Your task to perform on an android device: Search for the best rated wireless headphones on Amazon. Image 0: 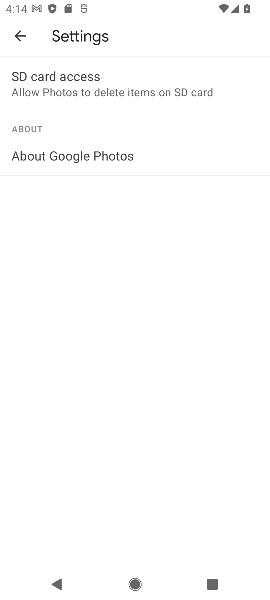
Step 0: click (8, 24)
Your task to perform on an android device: Search for the best rated wireless headphones on Amazon. Image 1: 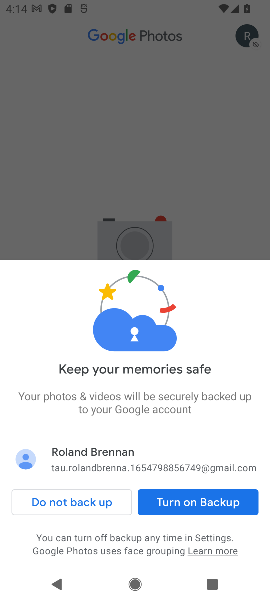
Step 1: press home button
Your task to perform on an android device: Search for the best rated wireless headphones on Amazon. Image 2: 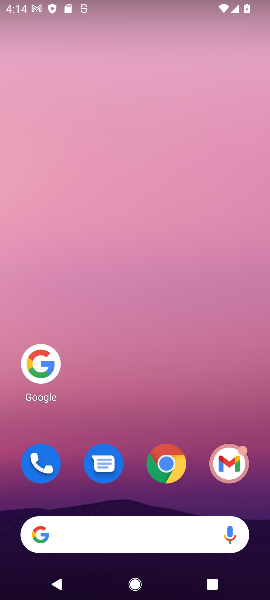
Step 2: click (37, 362)
Your task to perform on an android device: Search for the best rated wireless headphones on Amazon. Image 3: 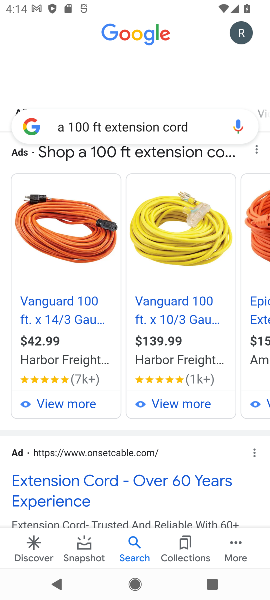
Step 3: click (180, 114)
Your task to perform on an android device: Search for the best rated wireless headphones on Amazon. Image 4: 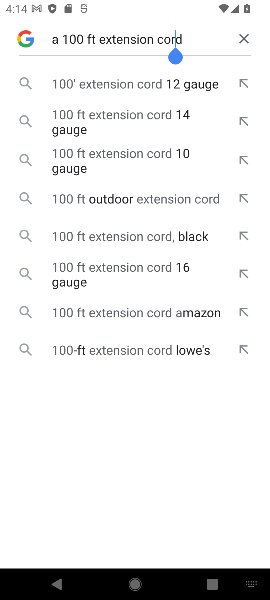
Step 4: click (248, 40)
Your task to perform on an android device: Search for the best rated wireless headphones on Amazon. Image 5: 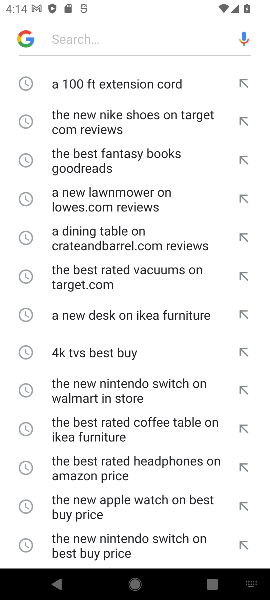
Step 5: click (85, 35)
Your task to perform on an android device: Search for the best rated wireless headphones on Amazon. Image 6: 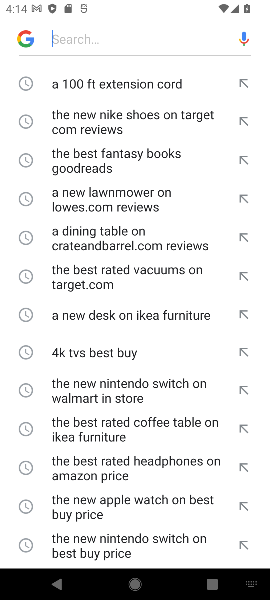
Step 6: type "best rated wireless headphones on Amazon "
Your task to perform on an android device: Search for the best rated wireless headphones on Amazon. Image 7: 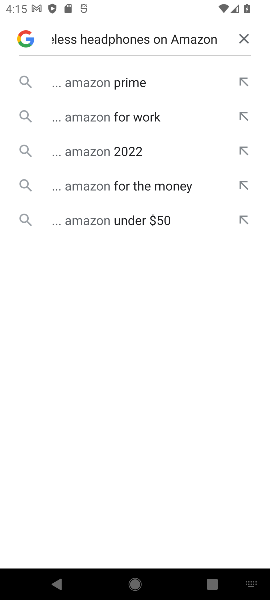
Step 7: click (118, 110)
Your task to perform on an android device: Search for the best rated wireless headphones on Amazon. Image 8: 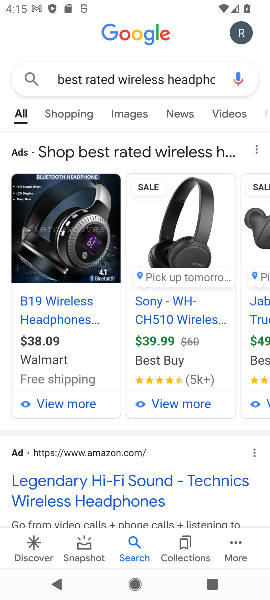
Step 8: click (191, 78)
Your task to perform on an android device: Search for the best rated wireless headphones on Amazon. Image 9: 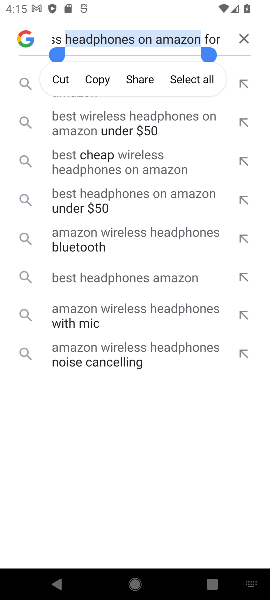
Step 9: click (175, 442)
Your task to perform on an android device: Search for the best rated wireless headphones on Amazon. Image 10: 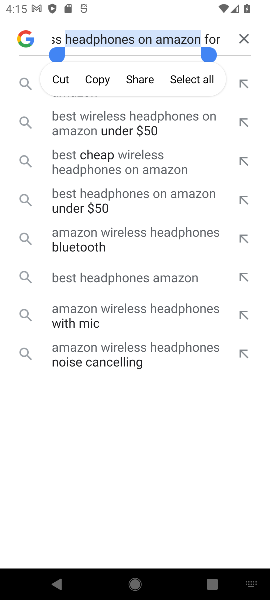
Step 10: press back button
Your task to perform on an android device: Search for the best rated wireless headphones on Amazon. Image 11: 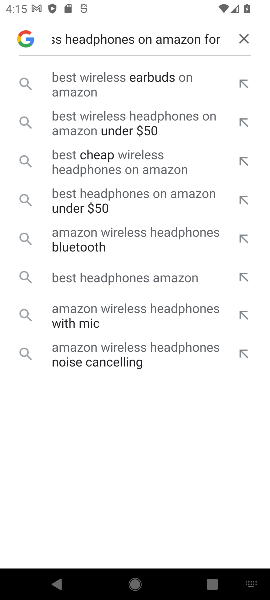
Step 11: click (121, 69)
Your task to perform on an android device: Search for the best rated wireless headphones on Amazon. Image 12: 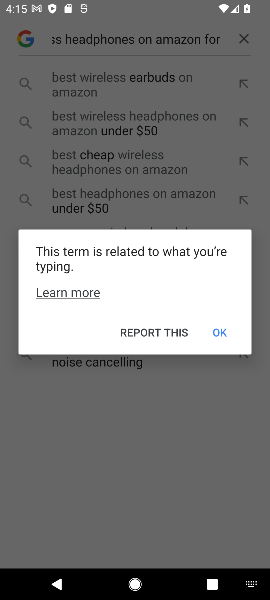
Step 12: click (220, 330)
Your task to perform on an android device: Search for the best rated wireless headphones on Amazon. Image 13: 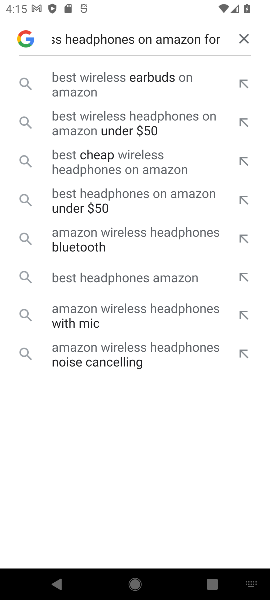
Step 13: click (251, 33)
Your task to perform on an android device: Search for the best rated wireless headphones on Amazon. Image 14: 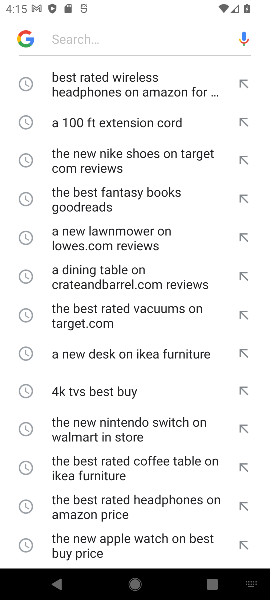
Step 14: click (120, 92)
Your task to perform on an android device: Search for the best rated wireless headphones on Amazon. Image 15: 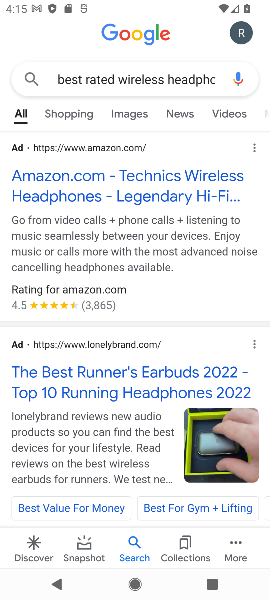
Step 15: task complete